Your task to perform on an android device: toggle airplane mode Image 0: 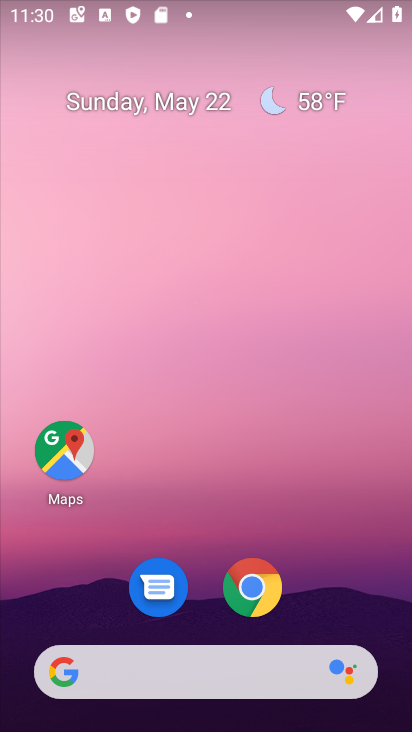
Step 0: drag from (209, 506) to (238, 6)
Your task to perform on an android device: toggle airplane mode Image 1: 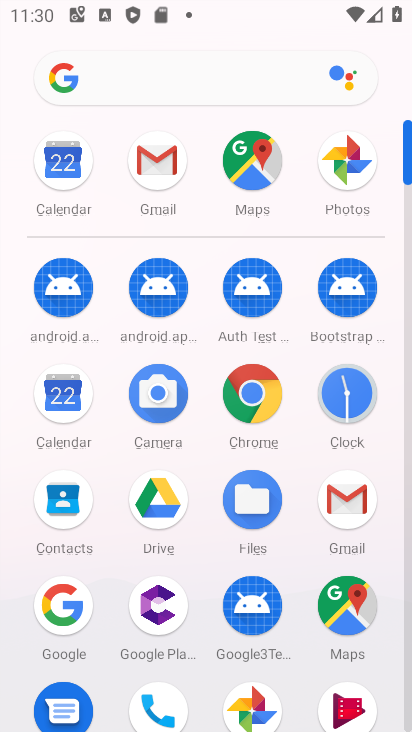
Step 1: drag from (201, 470) to (207, 119)
Your task to perform on an android device: toggle airplane mode Image 2: 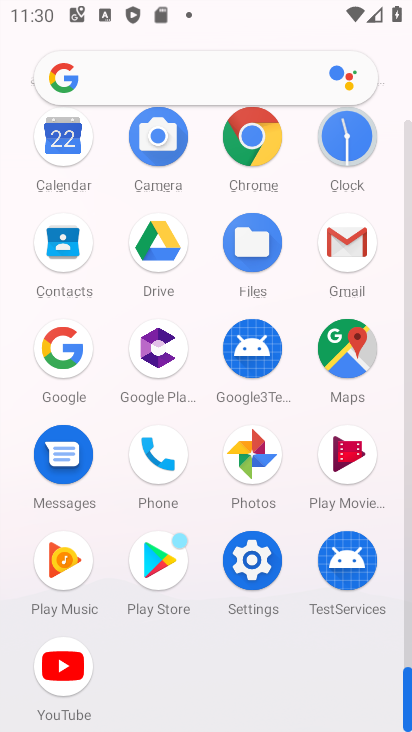
Step 2: click (244, 549)
Your task to perform on an android device: toggle airplane mode Image 3: 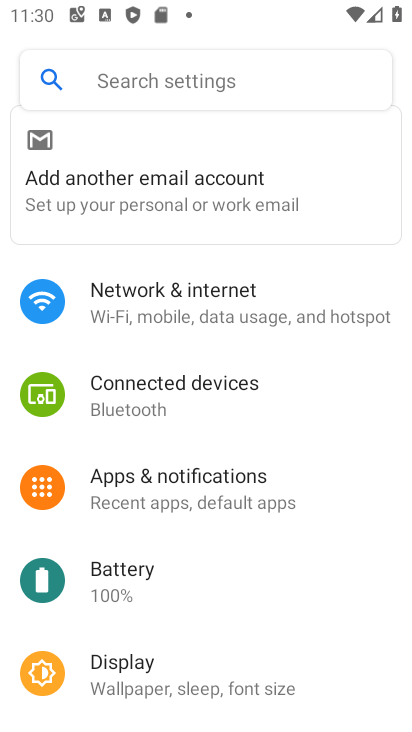
Step 3: click (307, 300)
Your task to perform on an android device: toggle airplane mode Image 4: 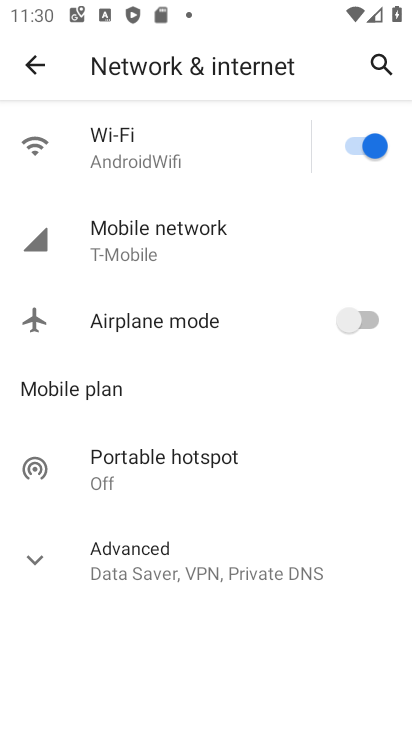
Step 4: click (361, 310)
Your task to perform on an android device: toggle airplane mode Image 5: 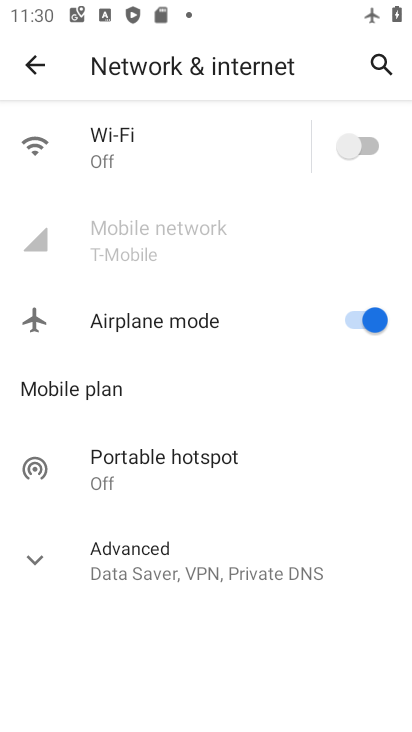
Step 5: task complete